Your task to perform on an android device: Open privacy settings Image 0: 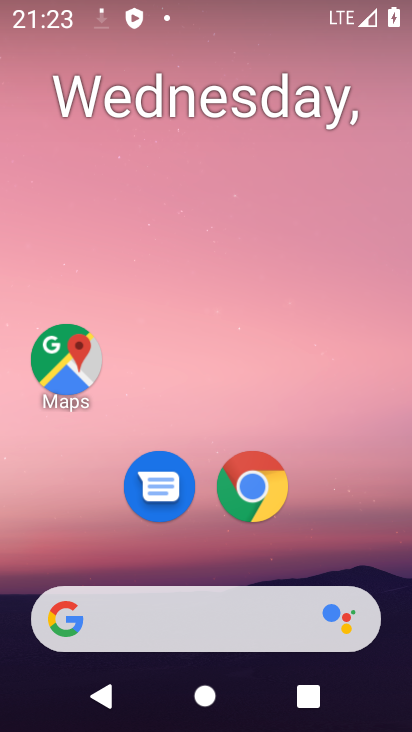
Step 0: drag from (152, 548) to (266, 12)
Your task to perform on an android device: Open privacy settings Image 1: 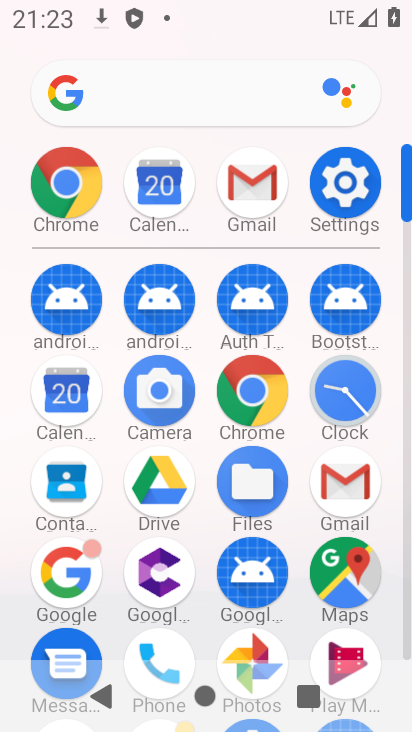
Step 1: click (352, 183)
Your task to perform on an android device: Open privacy settings Image 2: 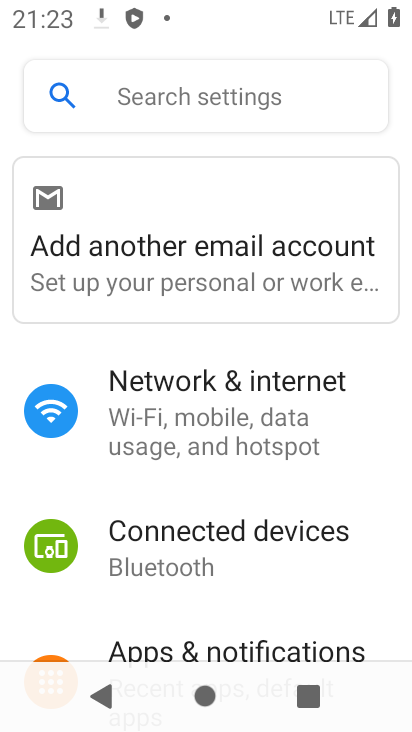
Step 2: drag from (167, 581) to (291, 63)
Your task to perform on an android device: Open privacy settings Image 3: 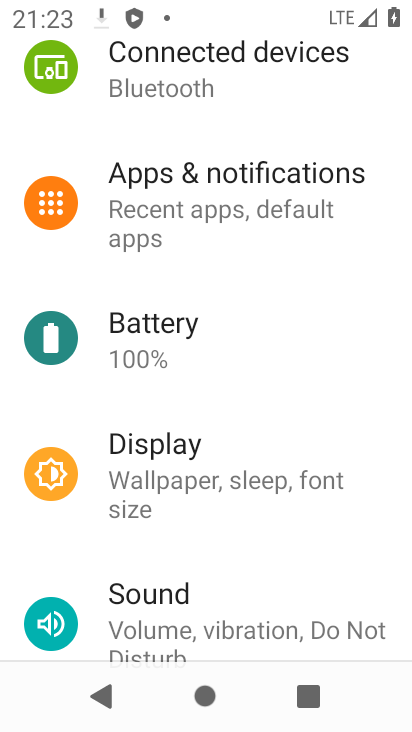
Step 3: drag from (161, 577) to (265, 103)
Your task to perform on an android device: Open privacy settings Image 4: 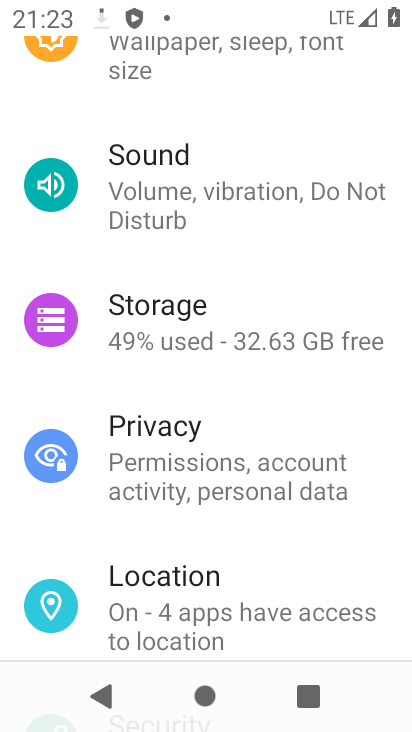
Step 4: click (153, 444)
Your task to perform on an android device: Open privacy settings Image 5: 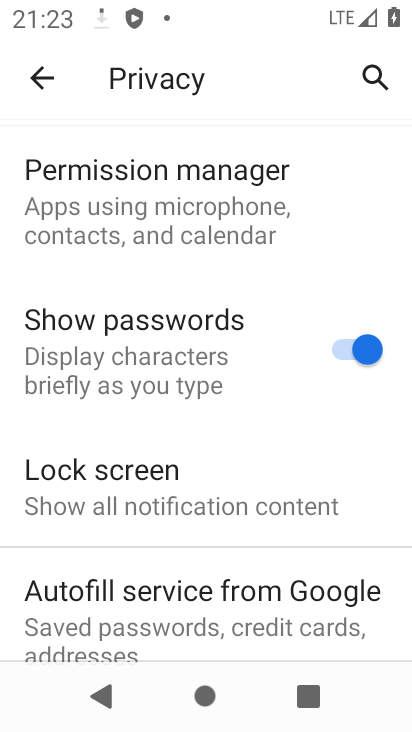
Step 5: task complete